Your task to perform on an android device: toggle priority inbox in the gmail app Image 0: 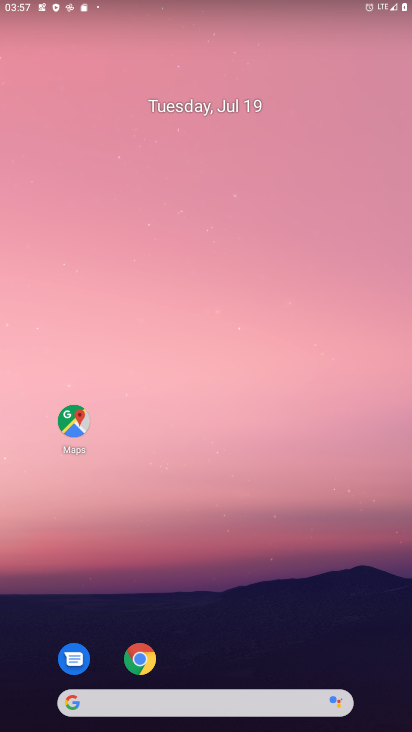
Step 0: press home button
Your task to perform on an android device: toggle priority inbox in the gmail app Image 1: 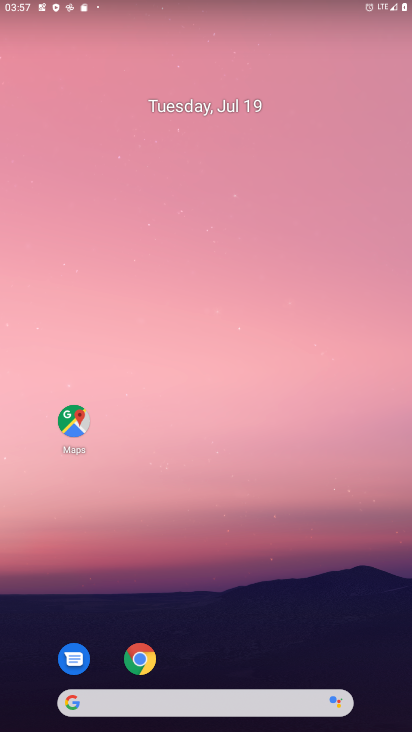
Step 1: press home button
Your task to perform on an android device: toggle priority inbox in the gmail app Image 2: 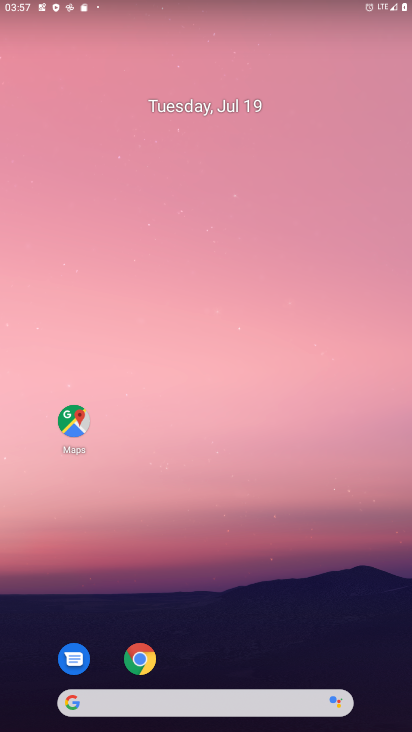
Step 2: drag from (241, 628) to (226, 6)
Your task to perform on an android device: toggle priority inbox in the gmail app Image 3: 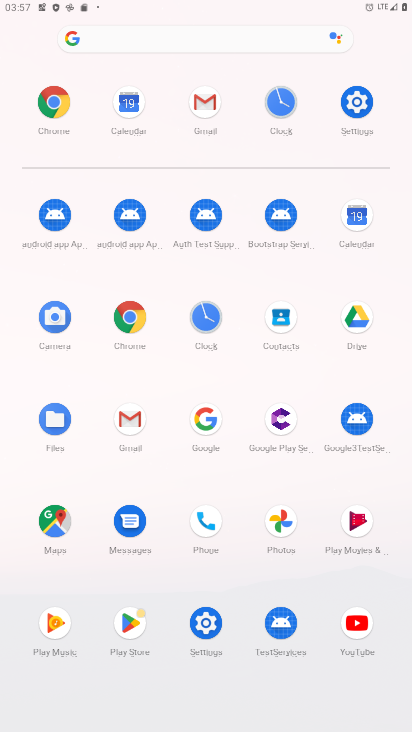
Step 3: click (188, 112)
Your task to perform on an android device: toggle priority inbox in the gmail app Image 4: 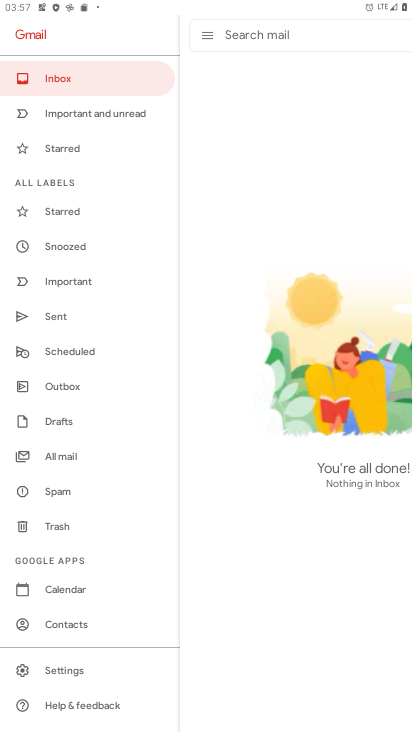
Step 4: click (51, 665)
Your task to perform on an android device: toggle priority inbox in the gmail app Image 5: 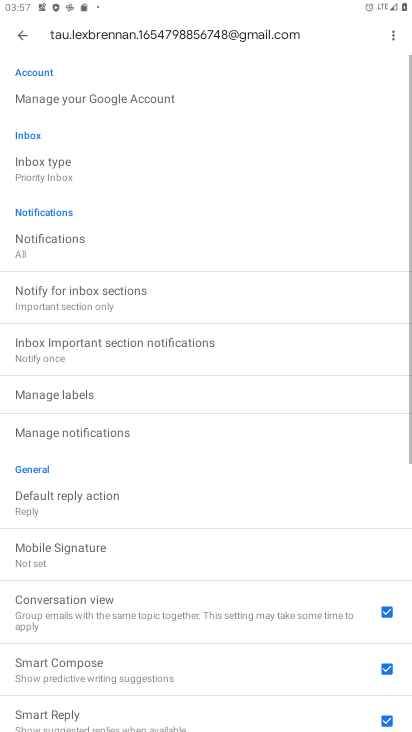
Step 5: click (103, 167)
Your task to perform on an android device: toggle priority inbox in the gmail app Image 6: 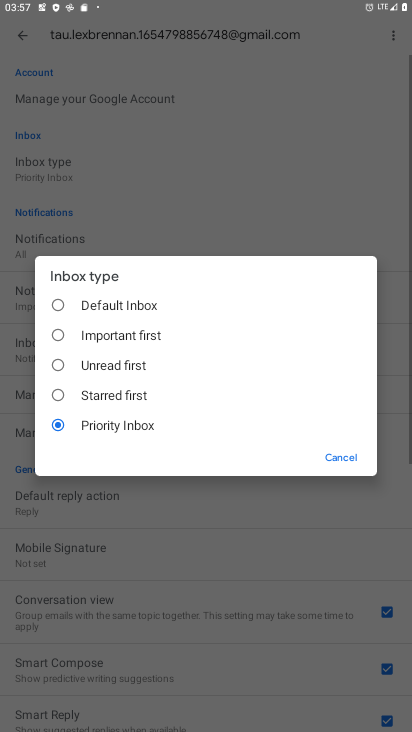
Step 6: click (90, 297)
Your task to perform on an android device: toggle priority inbox in the gmail app Image 7: 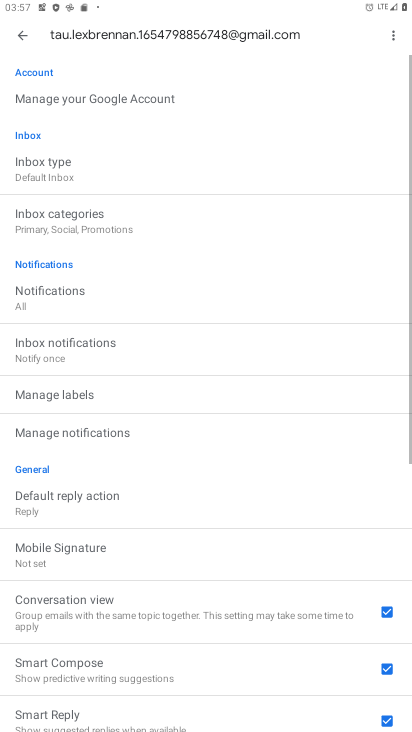
Step 7: task complete